Your task to perform on an android device: Open Maps and search for coffee Image 0: 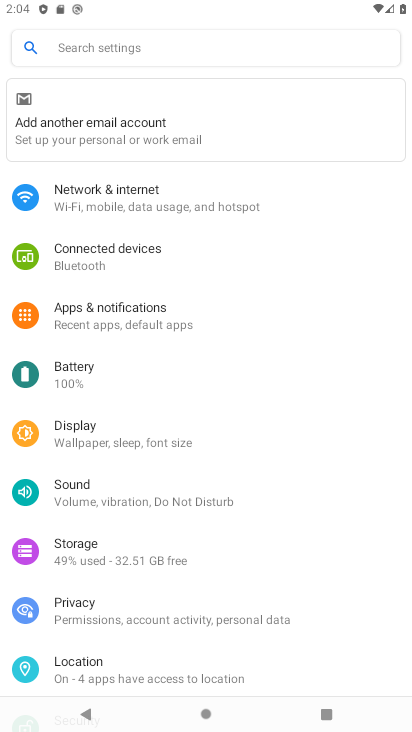
Step 0: press home button
Your task to perform on an android device: Open Maps and search for coffee Image 1: 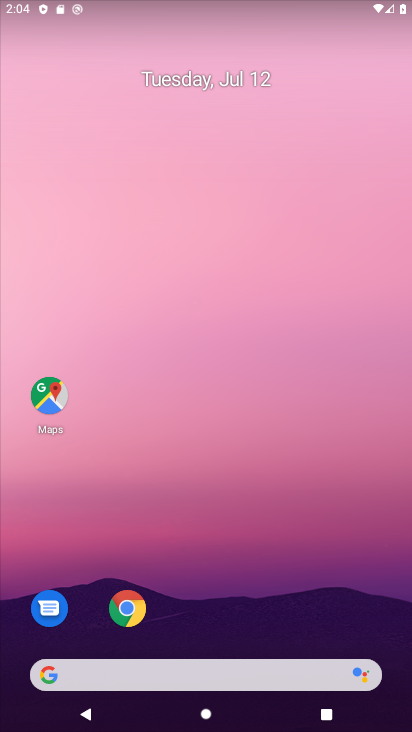
Step 1: drag from (270, 603) to (237, 90)
Your task to perform on an android device: Open Maps and search for coffee Image 2: 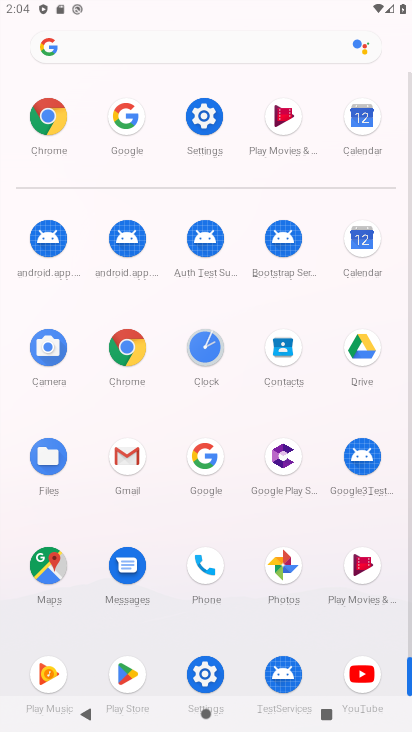
Step 2: click (35, 556)
Your task to perform on an android device: Open Maps and search for coffee Image 3: 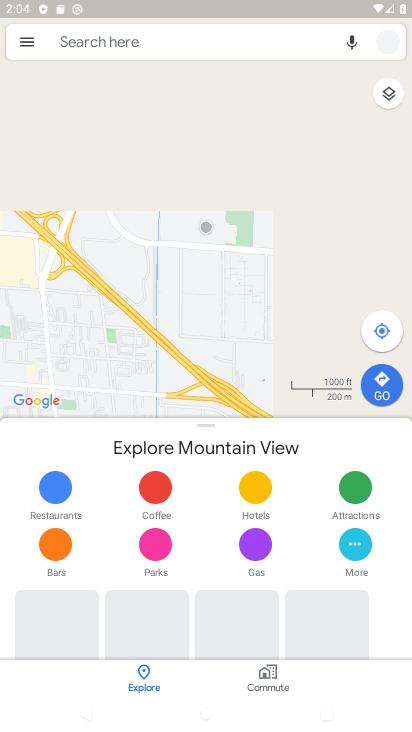
Step 3: click (204, 37)
Your task to perform on an android device: Open Maps and search for coffee Image 4: 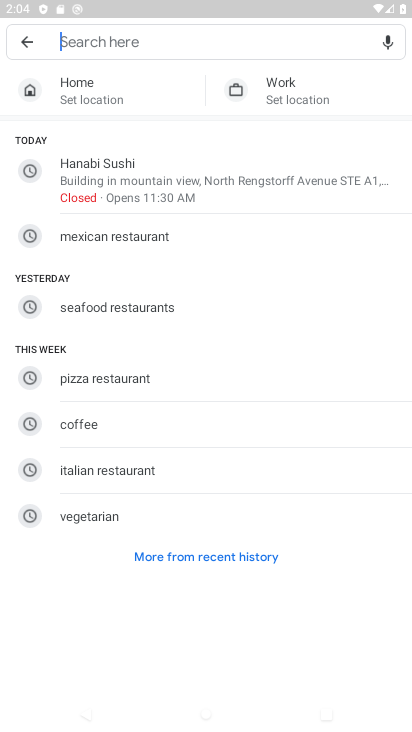
Step 4: click (134, 41)
Your task to perform on an android device: Open Maps and search for coffee Image 5: 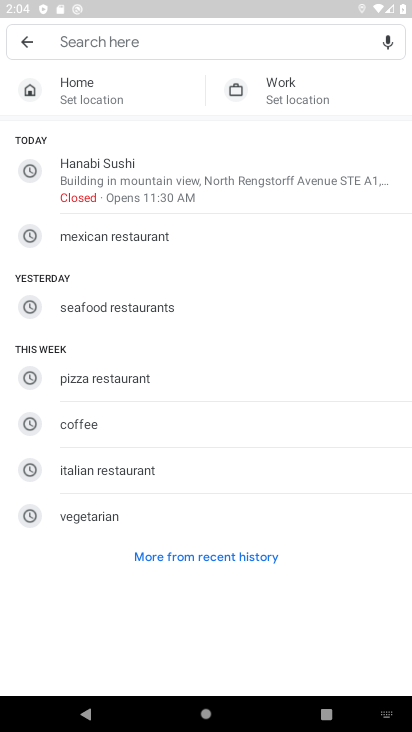
Step 5: click (82, 418)
Your task to perform on an android device: Open Maps and search for coffee Image 6: 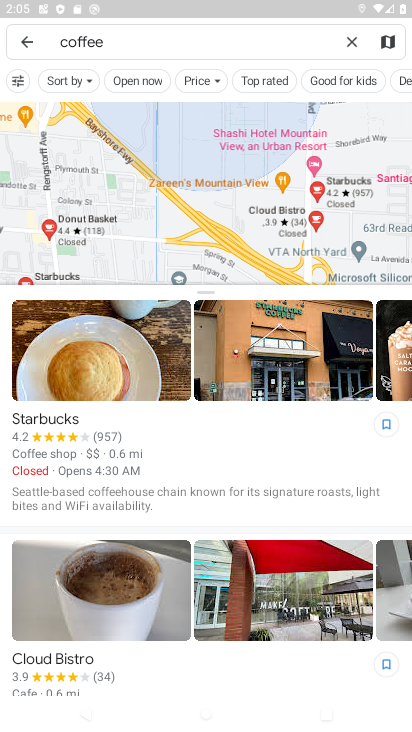
Step 6: task complete